Your task to perform on an android device: Open Google Maps and go to "Timeline" Image 0: 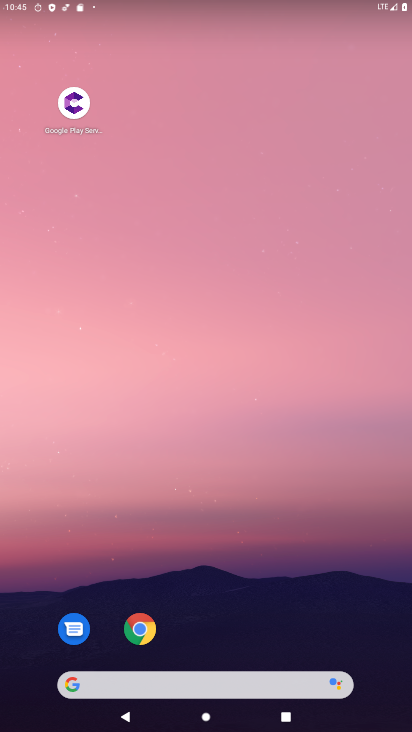
Step 0: drag from (214, 623) to (183, 226)
Your task to perform on an android device: Open Google Maps and go to "Timeline" Image 1: 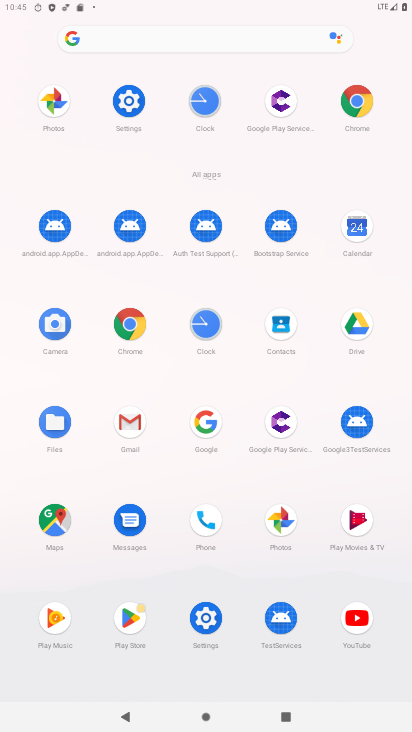
Step 1: click (56, 513)
Your task to perform on an android device: Open Google Maps and go to "Timeline" Image 2: 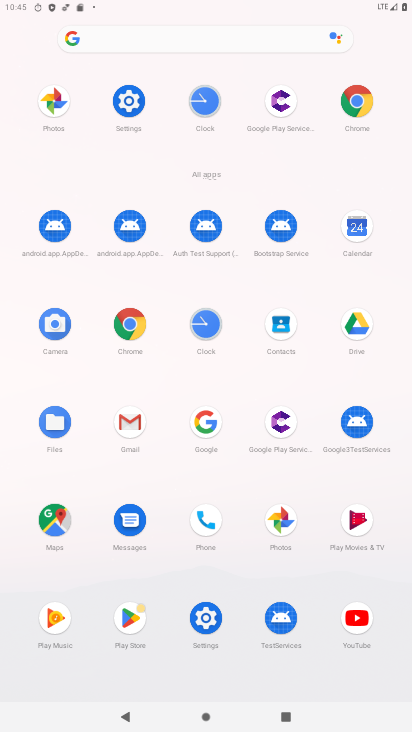
Step 2: click (64, 514)
Your task to perform on an android device: Open Google Maps and go to "Timeline" Image 3: 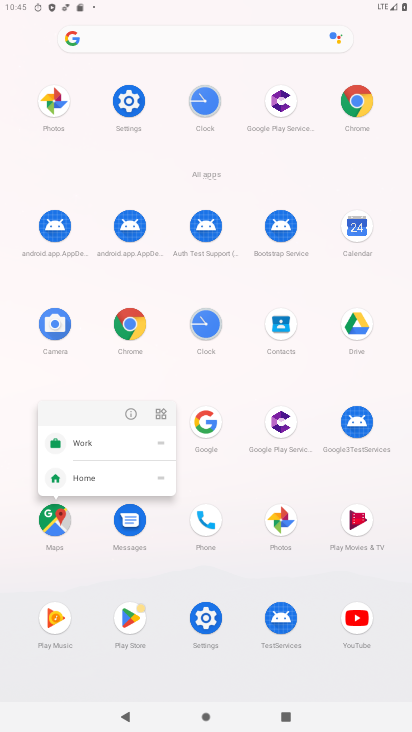
Step 3: click (71, 520)
Your task to perform on an android device: Open Google Maps and go to "Timeline" Image 4: 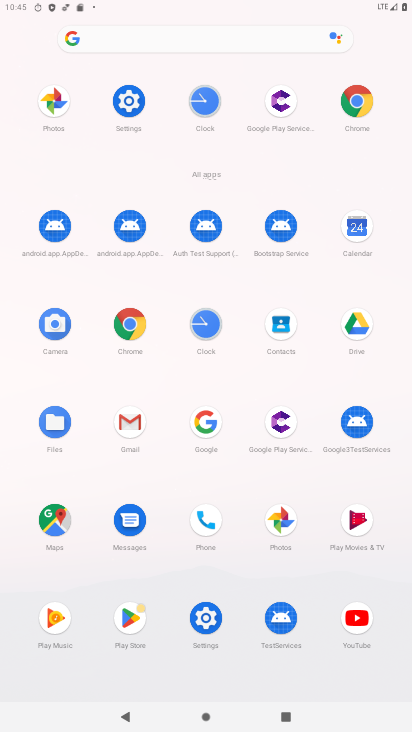
Step 4: click (59, 515)
Your task to perform on an android device: Open Google Maps and go to "Timeline" Image 5: 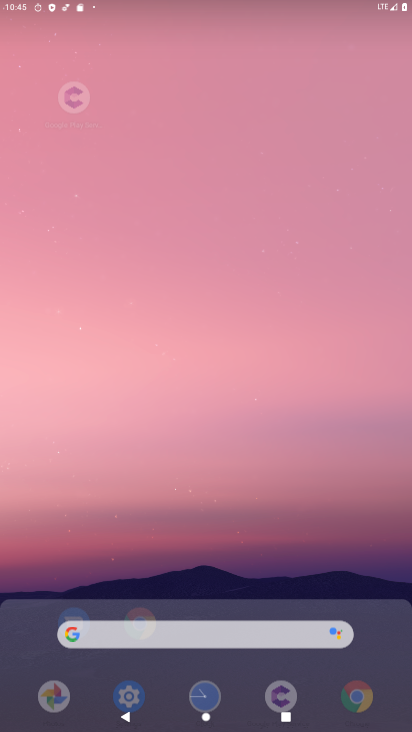
Step 5: click (54, 504)
Your task to perform on an android device: Open Google Maps and go to "Timeline" Image 6: 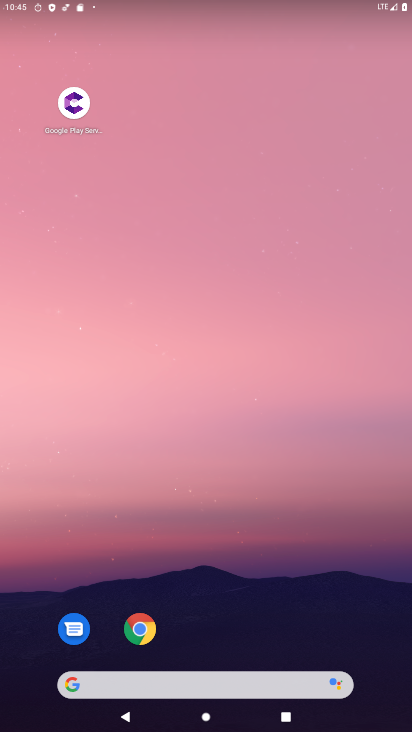
Step 6: drag from (233, 605) to (224, 32)
Your task to perform on an android device: Open Google Maps and go to "Timeline" Image 7: 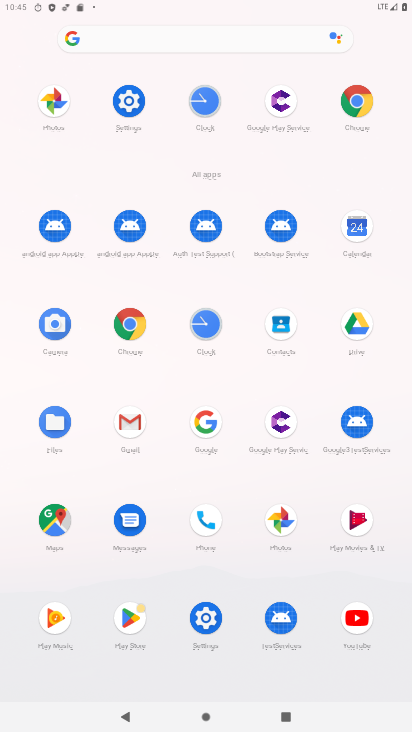
Step 7: click (48, 515)
Your task to perform on an android device: Open Google Maps and go to "Timeline" Image 8: 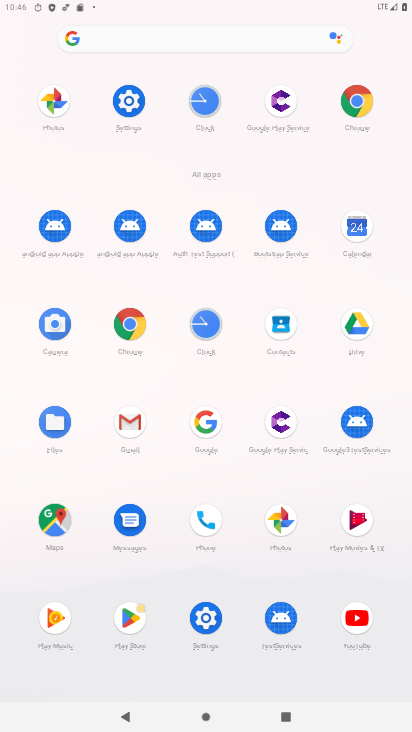
Step 8: click (48, 515)
Your task to perform on an android device: Open Google Maps and go to "Timeline" Image 9: 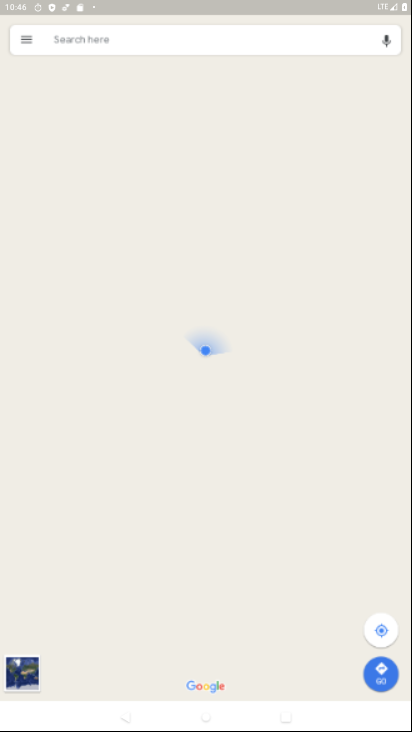
Step 9: click (57, 512)
Your task to perform on an android device: Open Google Maps and go to "Timeline" Image 10: 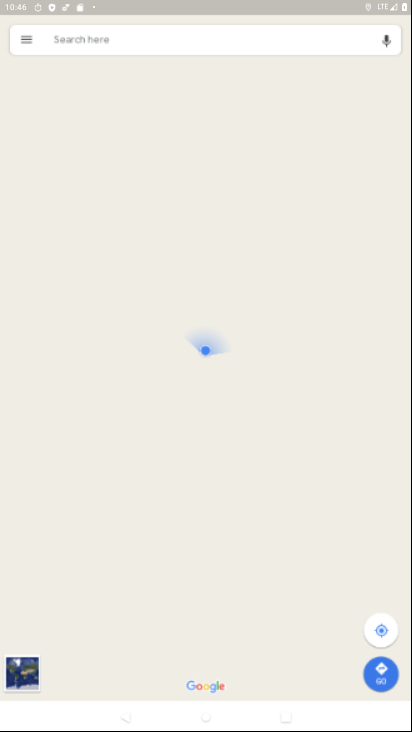
Step 10: click (60, 511)
Your task to perform on an android device: Open Google Maps and go to "Timeline" Image 11: 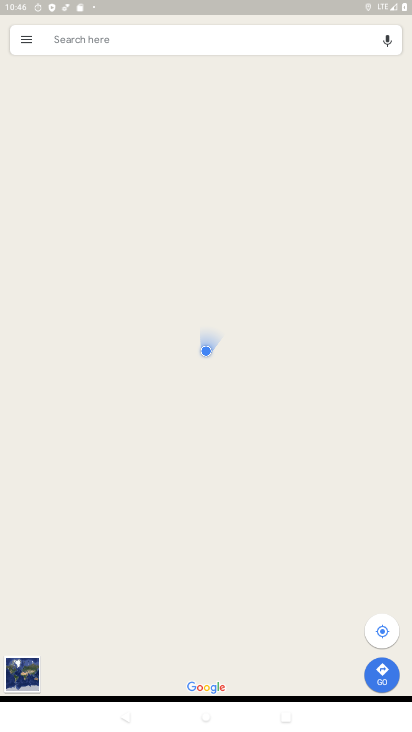
Step 11: click (20, 34)
Your task to perform on an android device: Open Google Maps and go to "Timeline" Image 12: 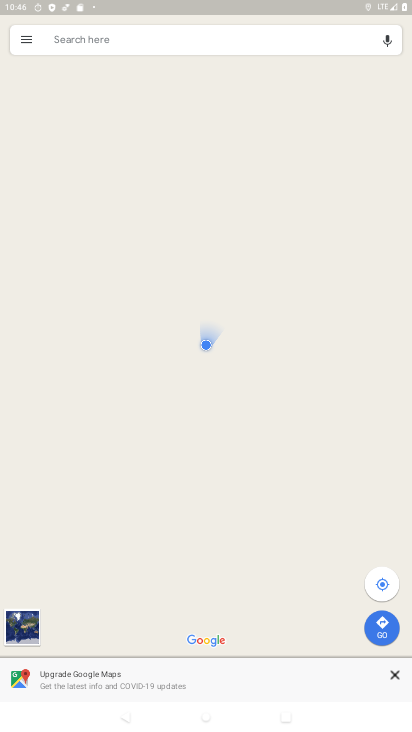
Step 12: click (37, 40)
Your task to perform on an android device: Open Google Maps and go to "Timeline" Image 13: 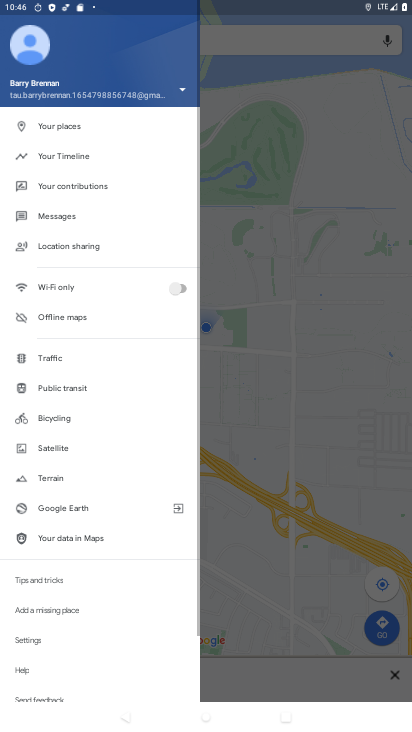
Step 13: click (66, 149)
Your task to perform on an android device: Open Google Maps and go to "Timeline" Image 14: 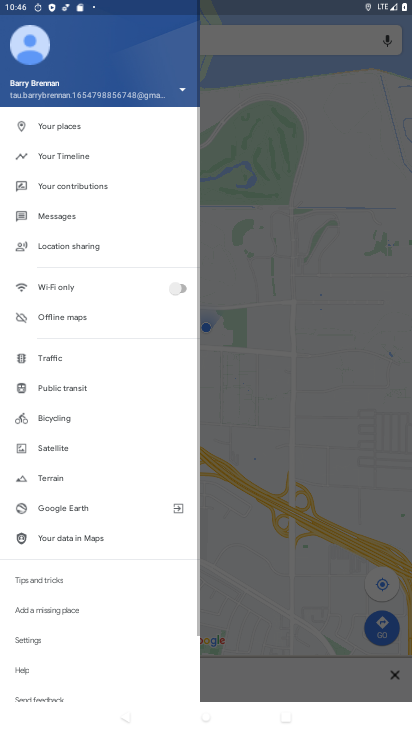
Step 14: click (88, 165)
Your task to perform on an android device: Open Google Maps and go to "Timeline" Image 15: 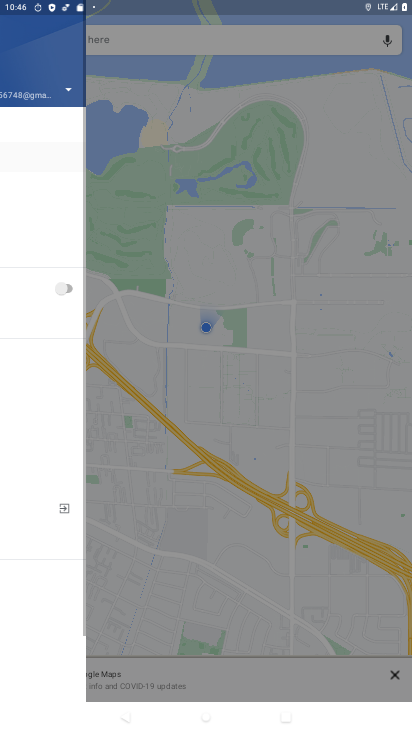
Step 15: click (71, 155)
Your task to perform on an android device: Open Google Maps and go to "Timeline" Image 16: 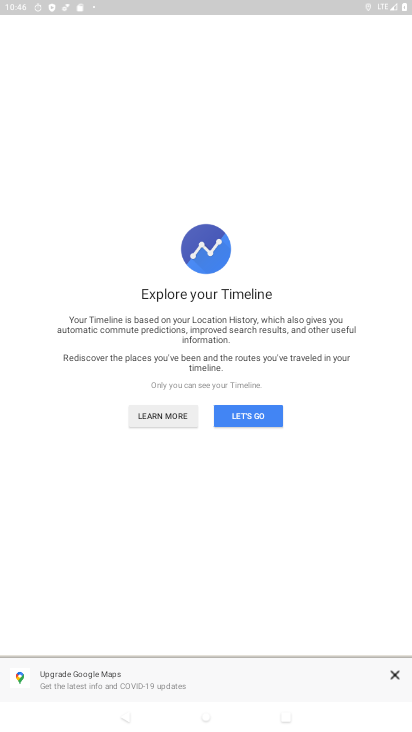
Step 16: click (244, 413)
Your task to perform on an android device: Open Google Maps and go to "Timeline" Image 17: 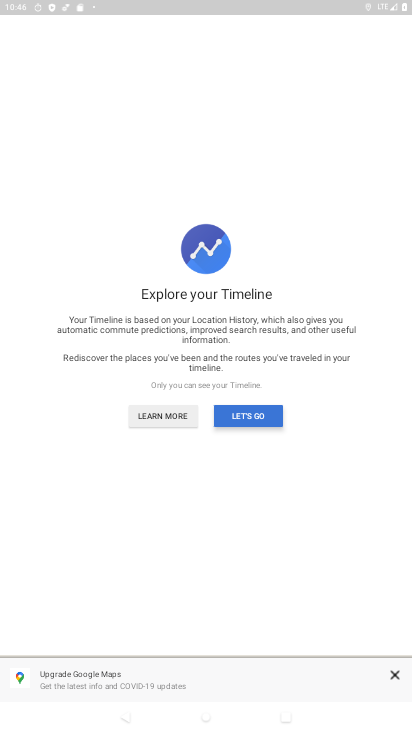
Step 17: click (244, 413)
Your task to perform on an android device: Open Google Maps and go to "Timeline" Image 18: 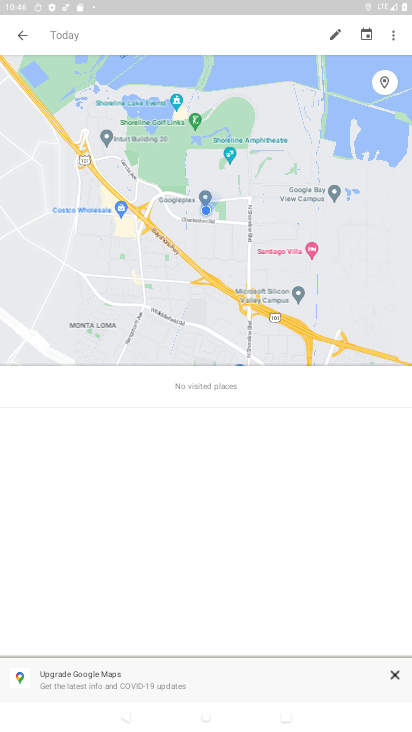
Step 18: task complete